Your task to perform on an android device: Go to CNN.com Image 0: 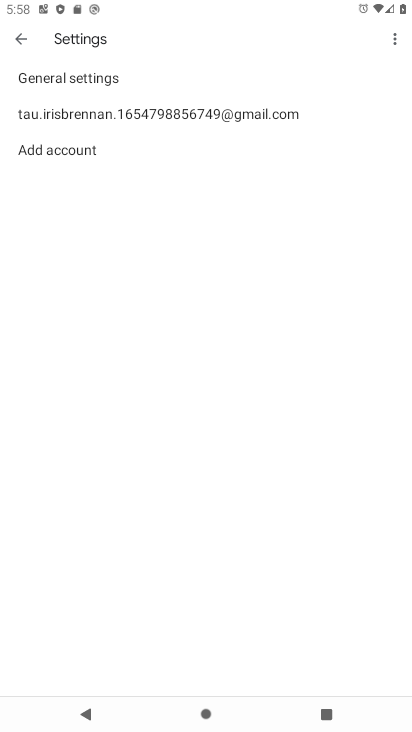
Step 0: press home button
Your task to perform on an android device: Go to CNN.com Image 1: 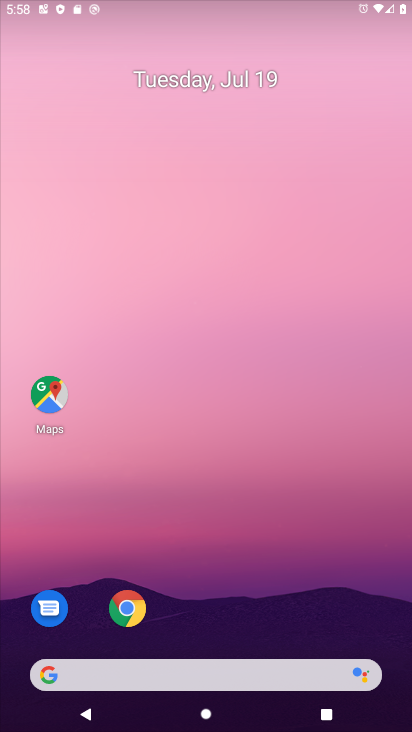
Step 1: drag from (281, 670) to (333, 33)
Your task to perform on an android device: Go to CNN.com Image 2: 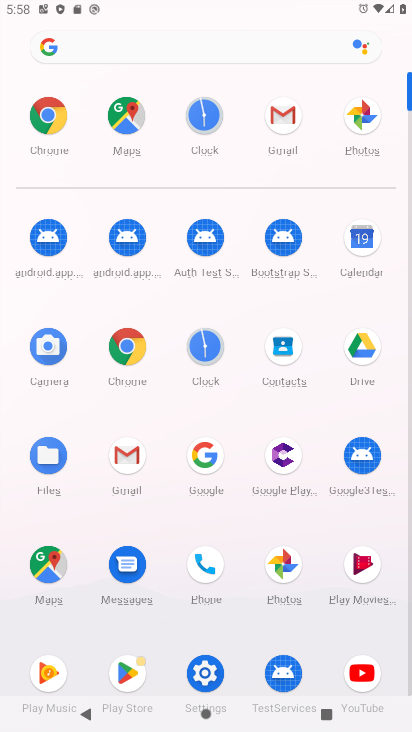
Step 2: click (132, 349)
Your task to perform on an android device: Go to CNN.com Image 3: 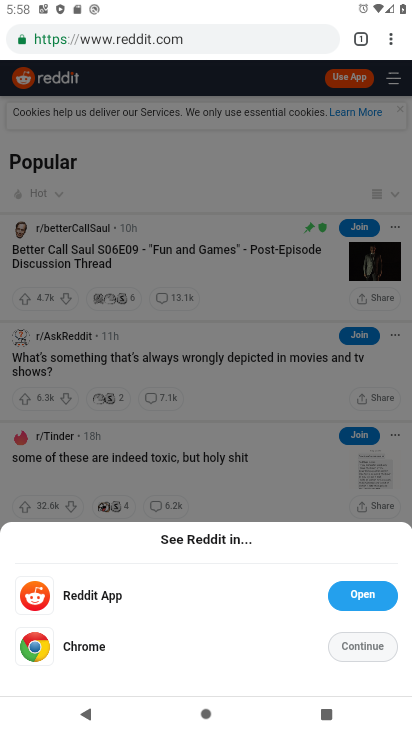
Step 3: click (180, 50)
Your task to perform on an android device: Go to CNN.com Image 4: 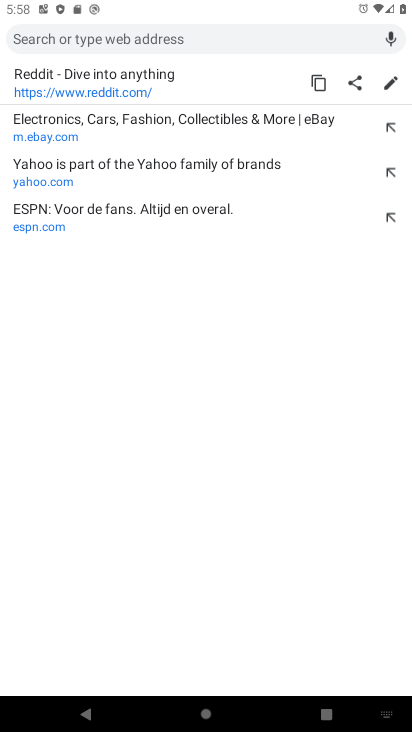
Step 4: type "cnn.com"
Your task to perform on an android device: Go to CNN.com Image 5: 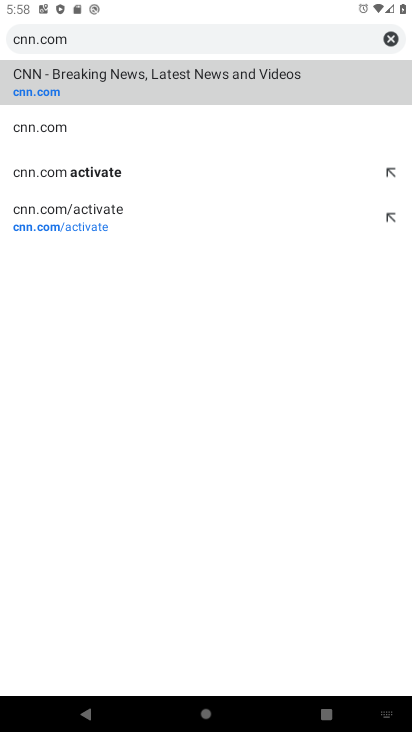
Step 5: click (50, 83)
Your task to perform on an android device: Go to CNN.com Image 6: 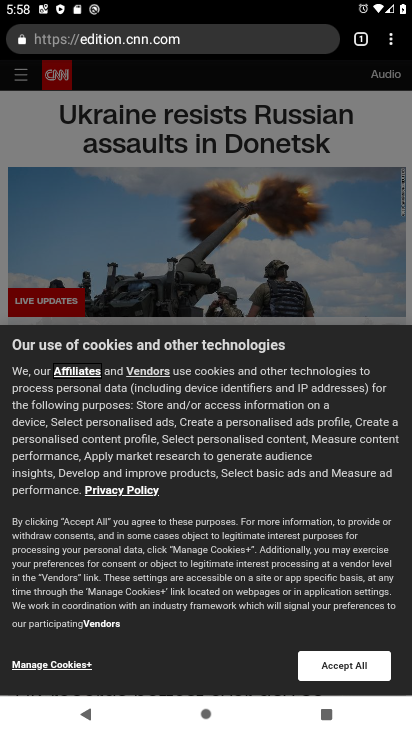
Step 6: task complete